Your task to perform on an android device: Open the map Image 0: 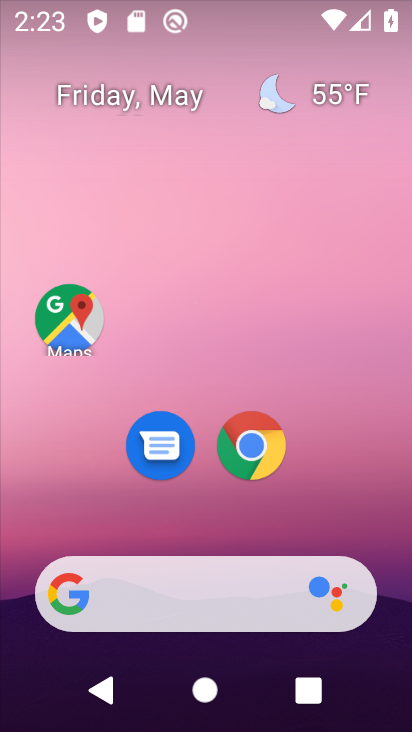
Step 0: drag from (390, 505) to (335, 132)
Your task to perform on an android device: Open the map Image 1: 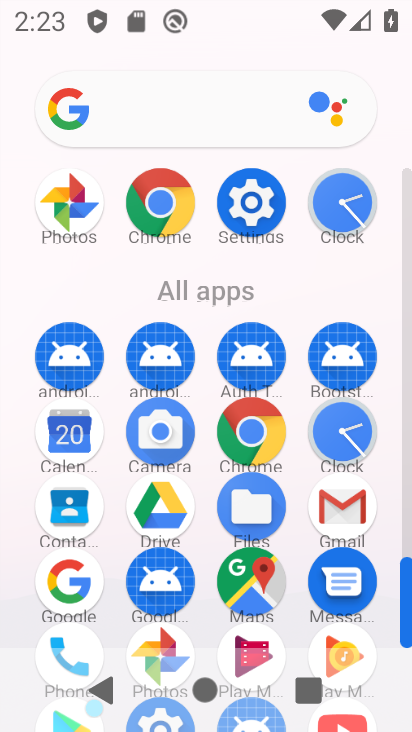
Step 1: drag from (306, 541) to (292, 302)
Your task to perform on an android device: Open the map Image 2: 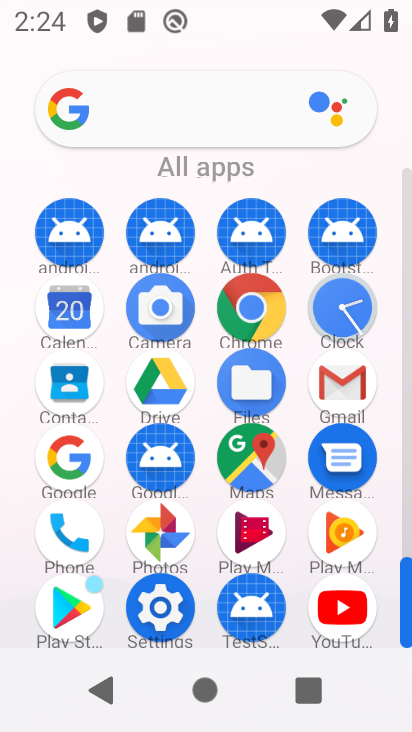
Step 2: click (270, 465)
Your task to perform on an android device: Open the map Image 3: 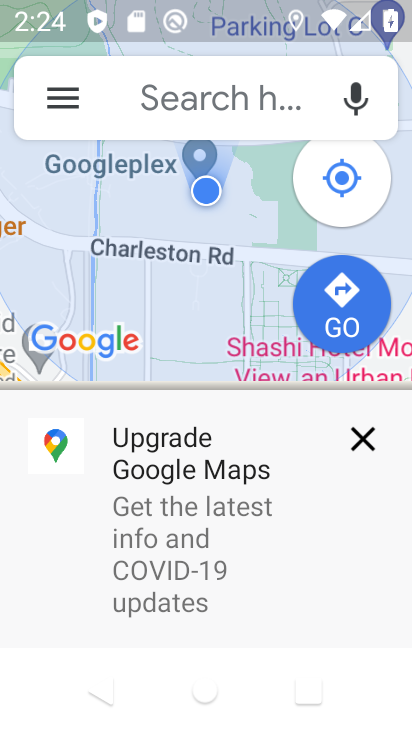
Step 3: click (366, 442)
Your task to perform on an android device: Open the map Image 4: 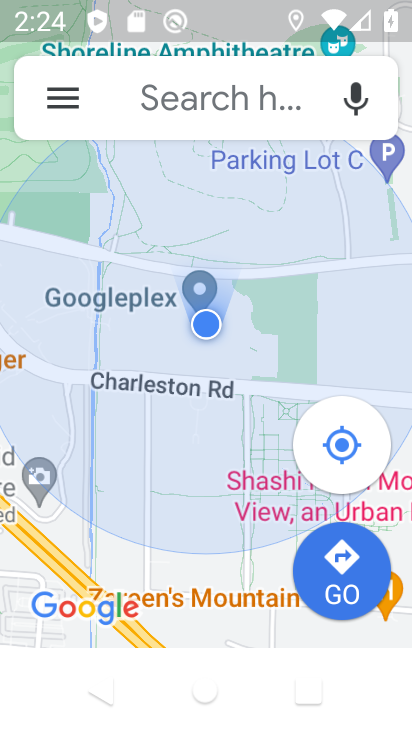
Step 4: task complete